Your task to perform on an android device: What's the weather going to be tomorrow? Image 0: 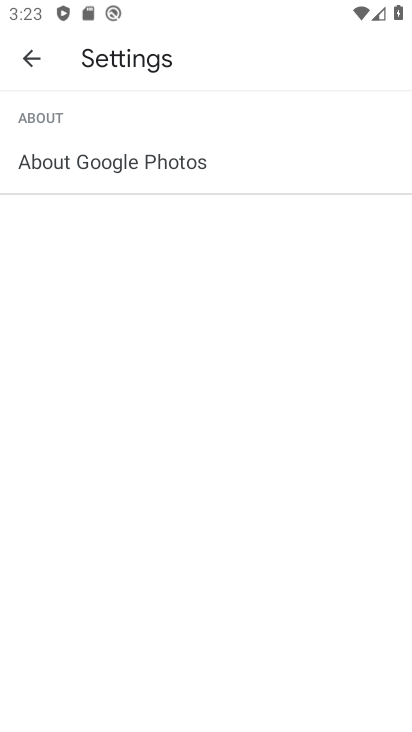
Step 0: press home button
Your task to perform on an android device: What's the weather going to be tomorrow? Image 1: 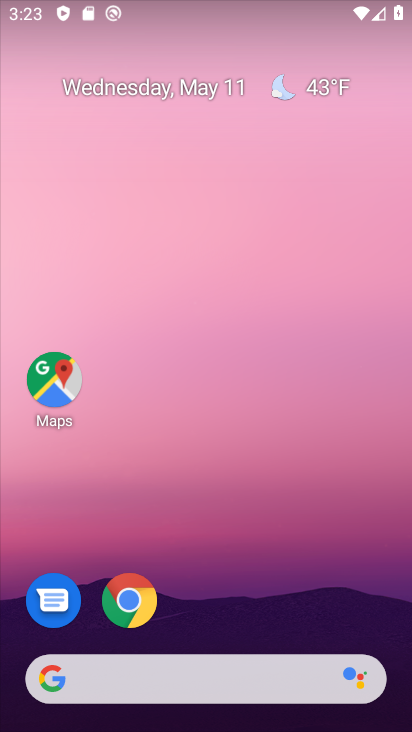
Step 1: click (319, 88)
Your task to perform on an android device: What's the weather going to be tomorrow? Image 2: 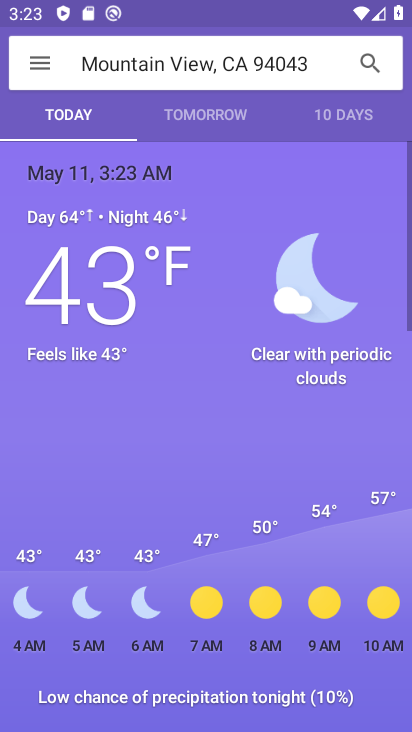
Step 2: click (214, 128)
Your task to perform on an android device: What's the weather going to be tomorrow? Image 3: 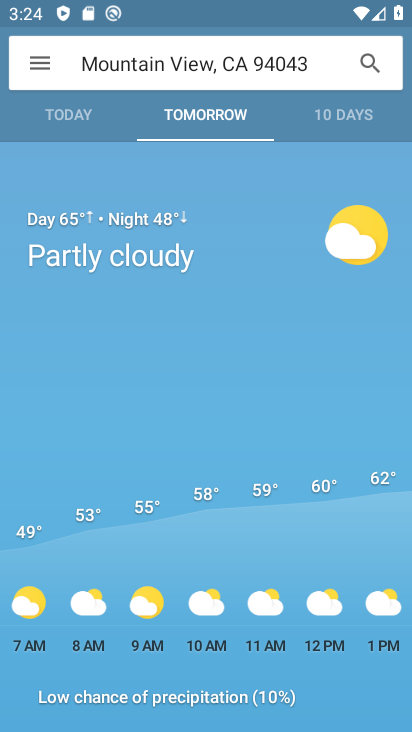
Step 3: task complete